Your task to perform on an android device: Open calendar and show me the third week of next month Image 0: 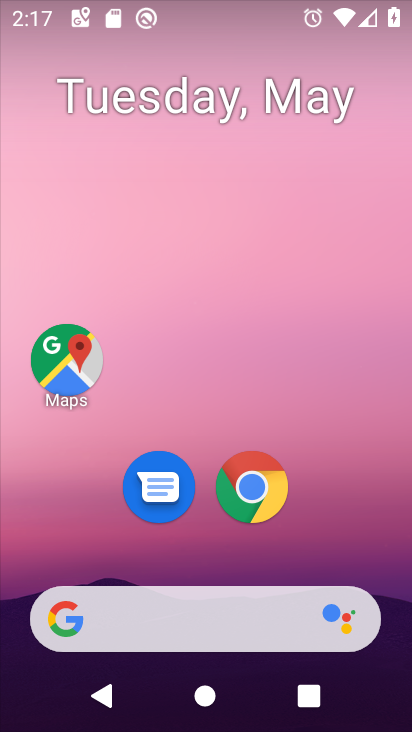
Step 0: press home button
Your task to perform on an android device: Open calendar and show me the third week of next month Image 1: 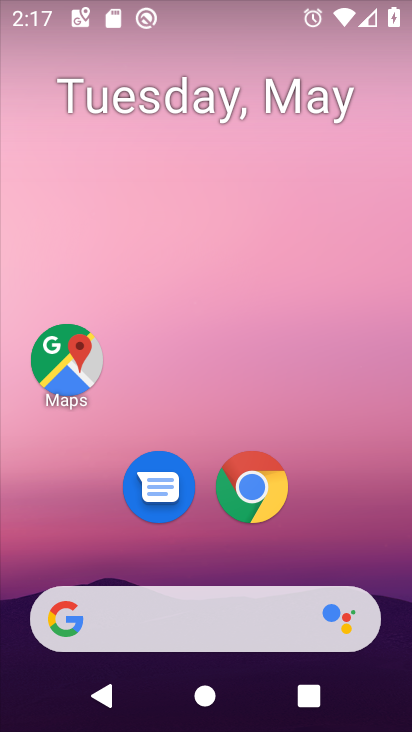
Step 1: drag from (22, 530) to (222, 169)
Your task to perform on an android device: Open calendar and show me the third week of next month Image 2: 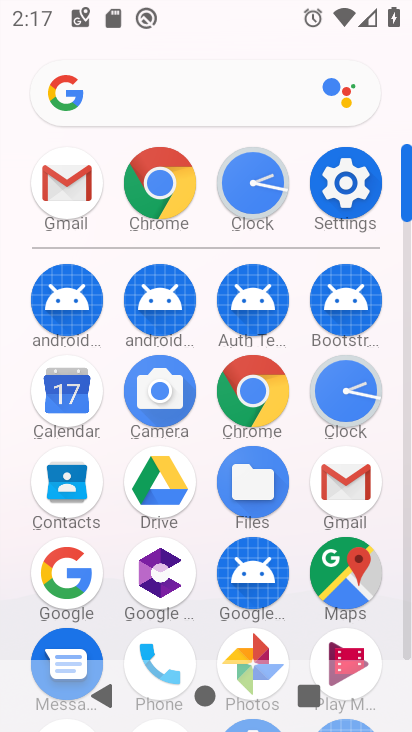
Step 2: click (72, 383)
Your task to perform on an android device: Open calendar and show me the third week of next month Image 3: 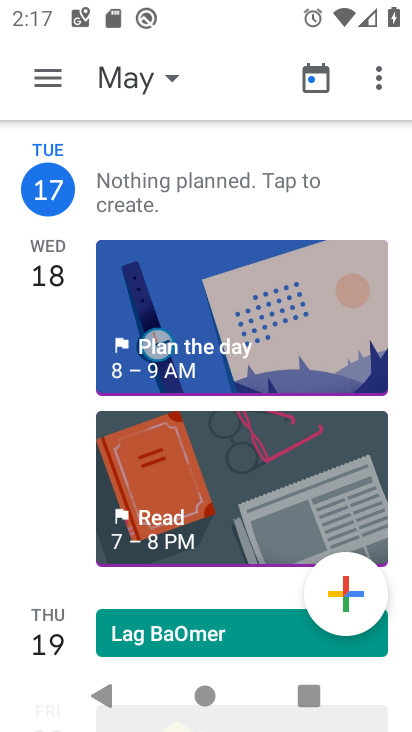
Step 3: click (139, 66)
Your task to perform on an android device: Open calendar and show me the third week of next month Image 4: 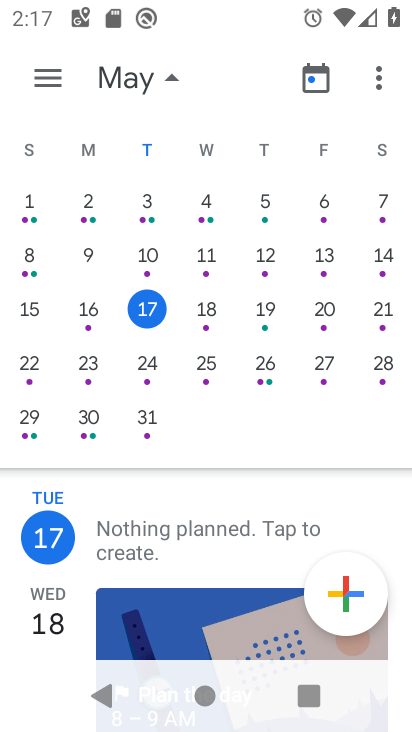
Step 4: drag from (402, 313) to (74, 344)
Your task to perform on an android device: Open calendar and show me the third week of next month Image 5: 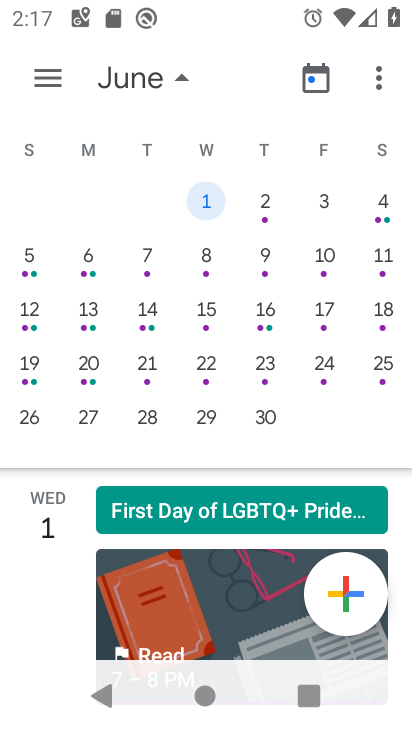
Step 5: click (218, 263)
Your task to perform on an android device: Open calendar and show me the third week of next month Image 6: 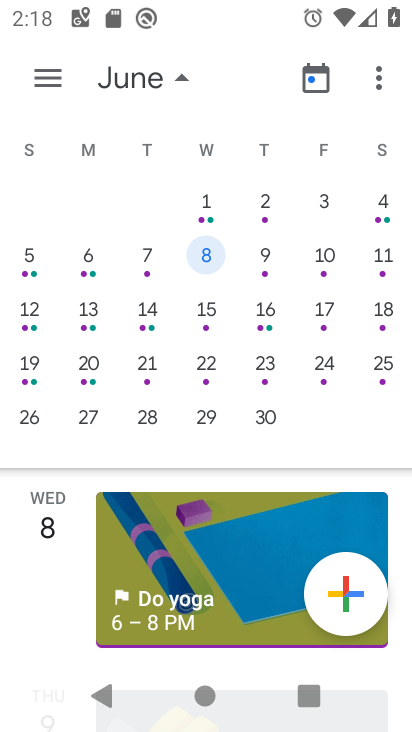
Step 6: click (205, 308)
Your task to perform on an android device: Open calendar and show me the third week of next month Image 7: 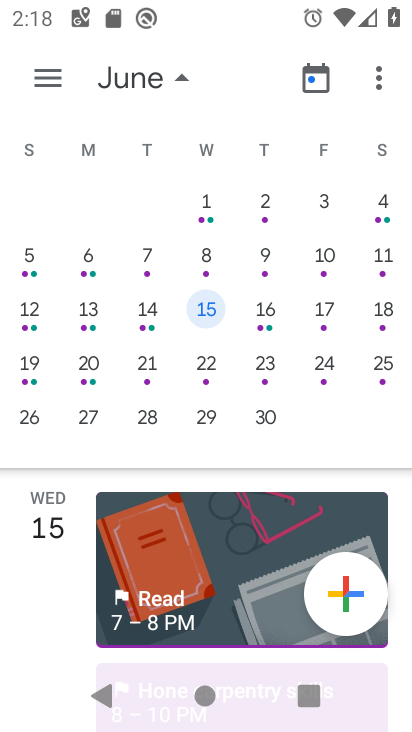
Step 7: task complete